Your task to perform on an android device: turn off javascript in the chrome app Image 0: 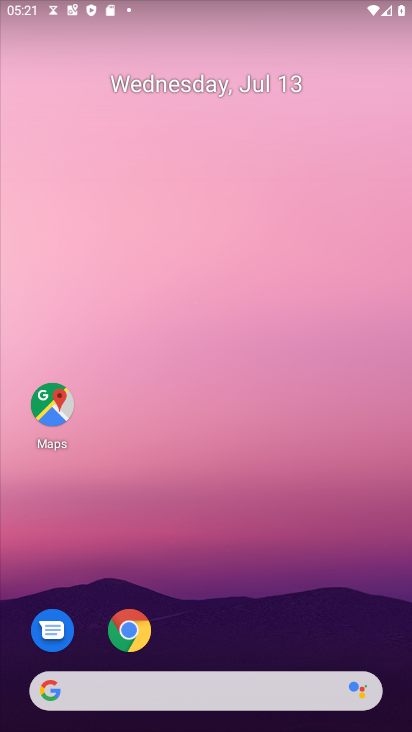
Step 0: drag from (298, 691) to (322, 82)
Your task to perform on an android device: turn off javascript in the chrome app Image 1: 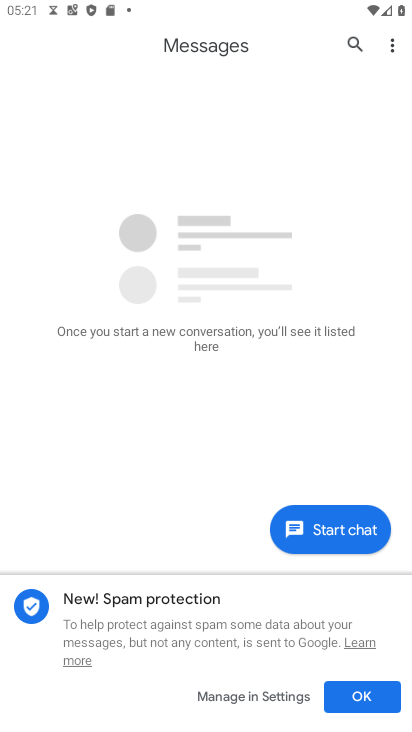
Step 1: press home button
Your task to perform on an android device: turn off javascript in the chrome app Image 2: 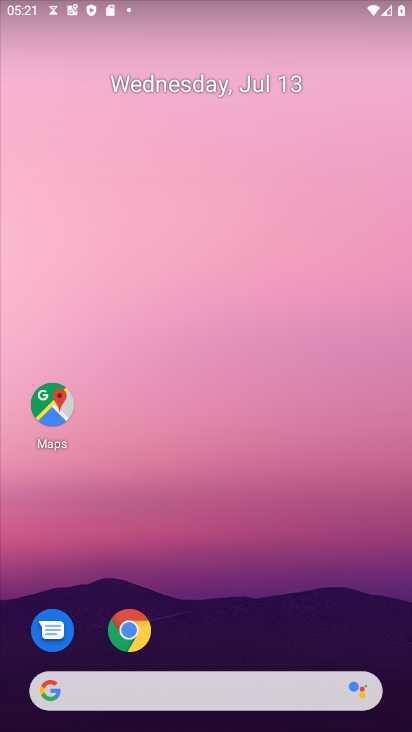
Step 2: drag from (115, 684) to (236, 135)
Your task to perform on an android device: turn off javascript in the chrome app Image 3: 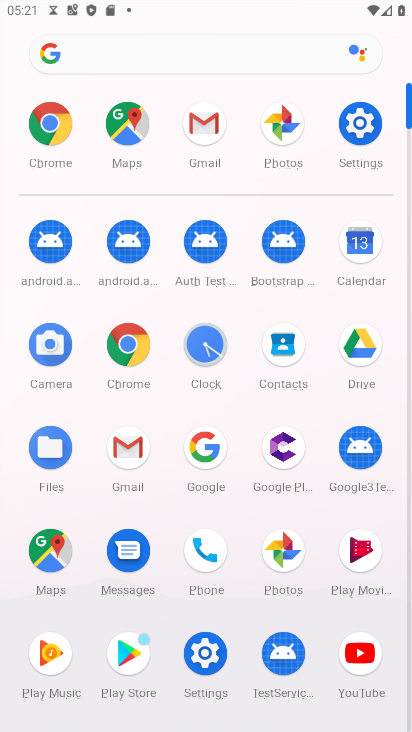
Step 3: click (135, 359)
Your task to perform on an android device: turn off javascript in the chrome app Image 4: 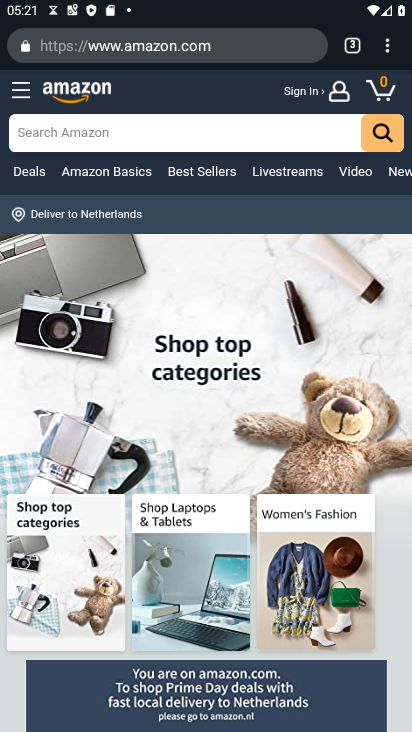
Step 4: drag from (391, 49) to (238, 552)
Your task to perform on an android device: turn off javascript in the chrome app Image 5: 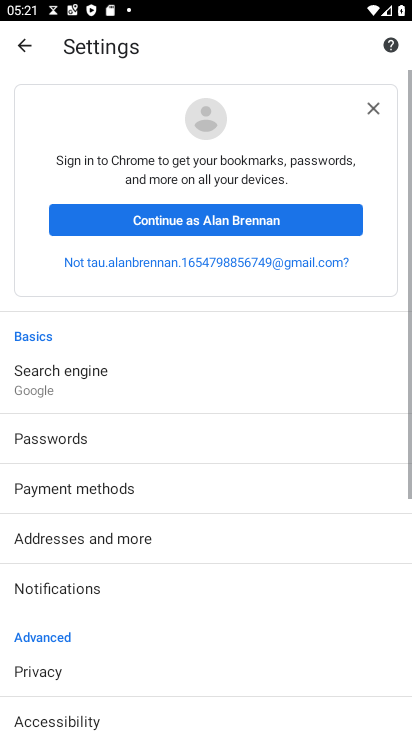
Step 5: drag from (154, 654) to (225, 250)
Your task to perform on an android device: turn off javascript in the chrome app Image 6: 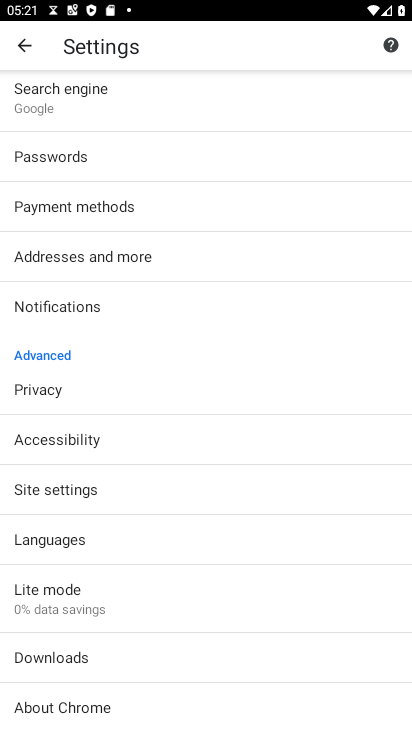
Step 6: click (79, 495)
Your task to perform on an android device: turn off javascript in the chrome app Image 7: 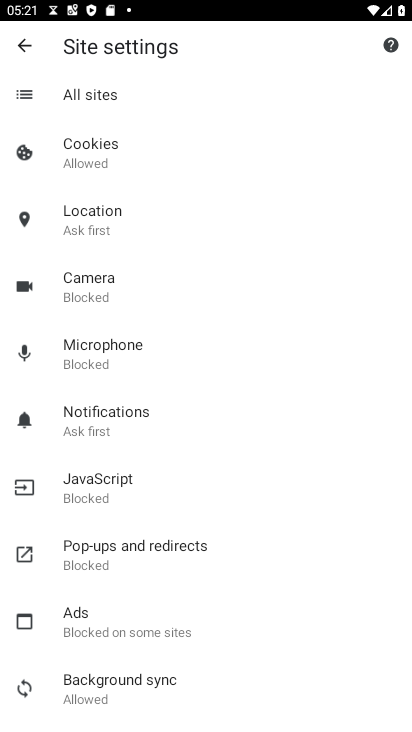
Step 7: click (107, 502)
Your task to perform on an android device: turn off javascript in the chrome app Image 8: 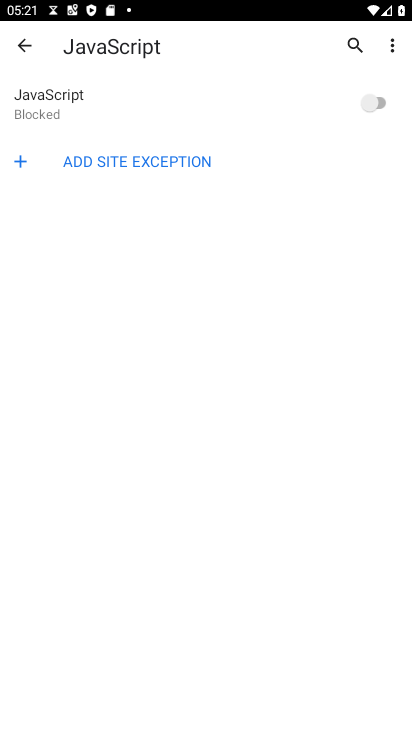
Step 8: task complete